Your task to perform on an android device: toggle improve location accuracy Image 0: 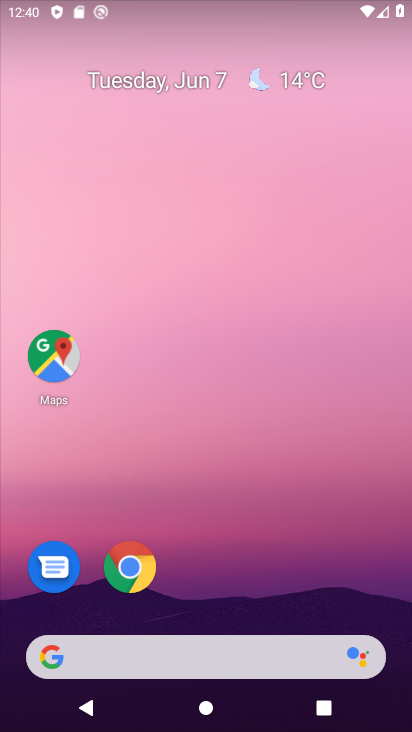
Step 0: drag from (262, 583) to (323, 0)
Your task to perform on an android device: toggle improve location accuracy Image 1: 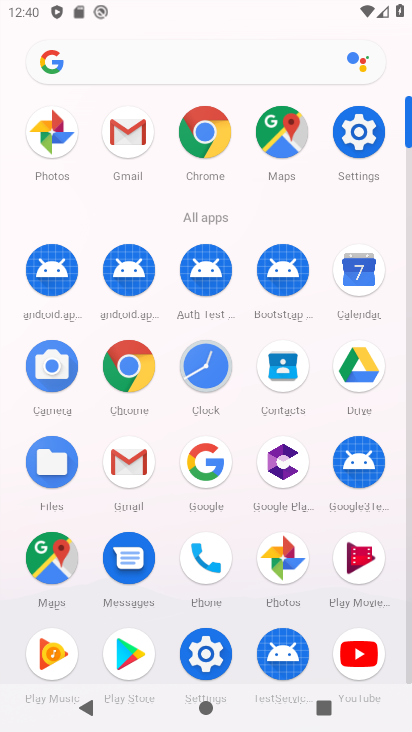
Step 1: click (358, 128)
Your task to perform on an android device: toggle improve location accuracy Image 2: 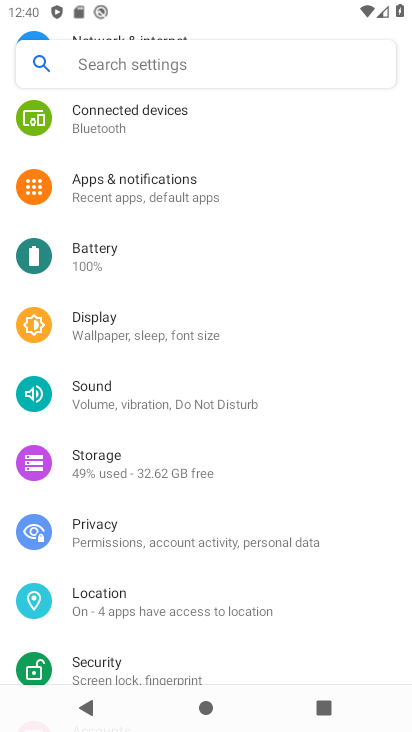
Step 2: click (80, 606)
Your task to perform on an android device: toggle improve location accuracy Image 3: 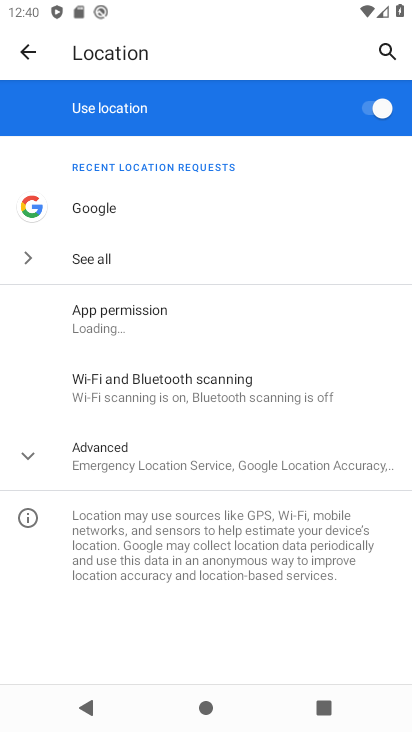
Step 3: click (142, 459)
Your task to perform on an android device: toggle improve location accuracy Image 4: 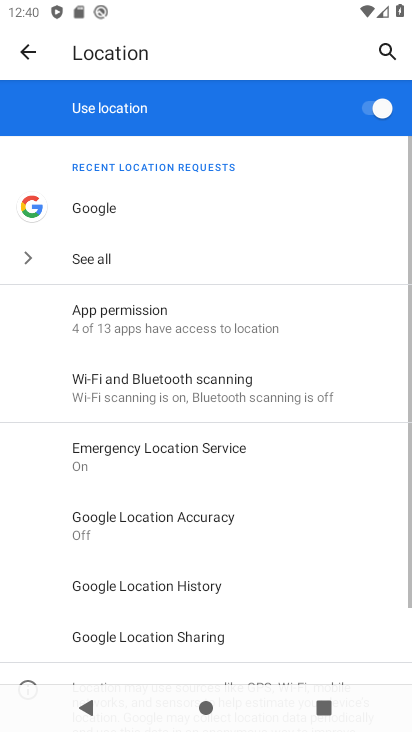
Step 4: click (189, 526)
Your task to perform on an android device: toggle improve location accuracy Image 5: 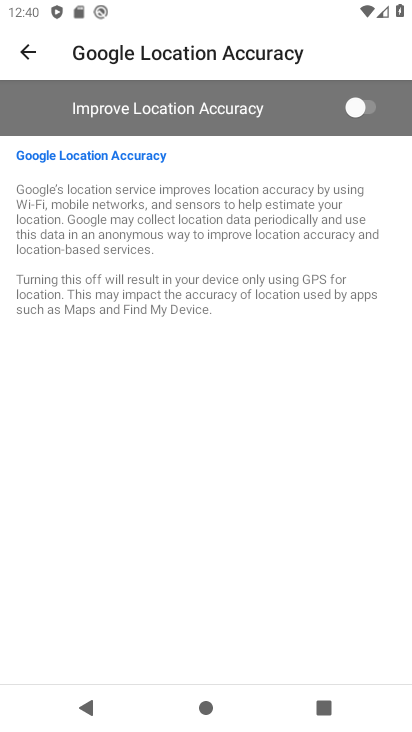
Step 5: click (367, 116)
Your task to perform on an android device: toggle improve location accuracy Image 6: 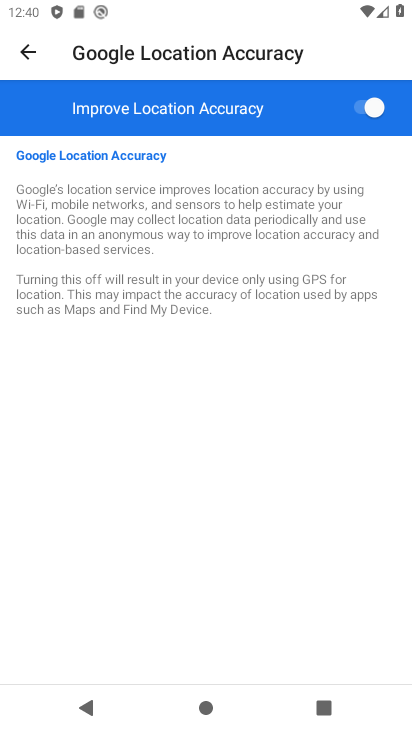
Step 6: task complete